Your task to perform on an android device: Show me productivity apps on the Play Store Image 0: 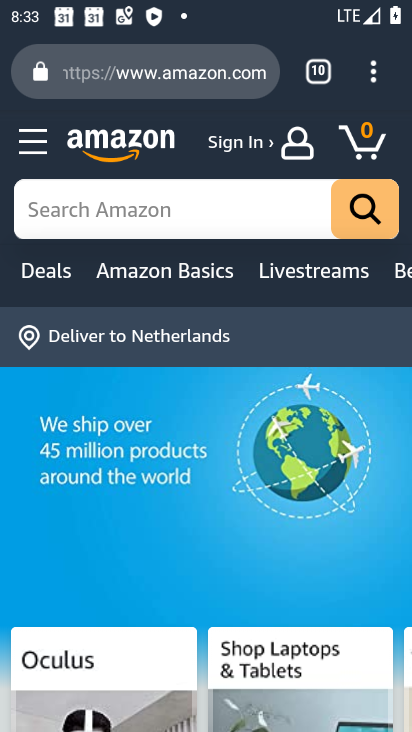
Step 0: press home button
Your task to perform on an android device: Show me productivity apps on the Play Store Image 1: 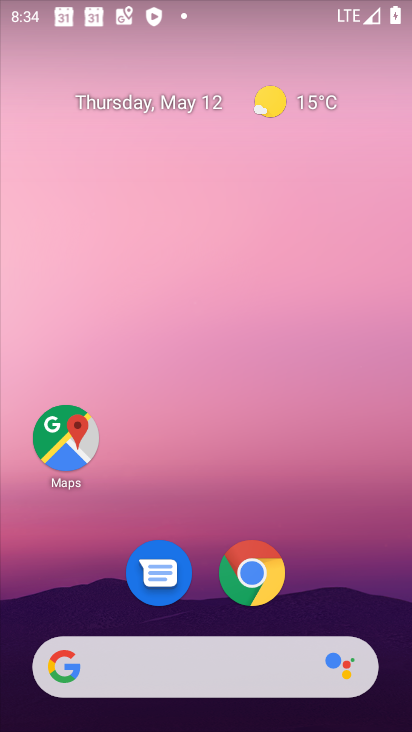
Step 1: drag from (319, 457) to (217, 40)
Your task to perform on an android device: Show me productivity apps on the Play Store Image 2: 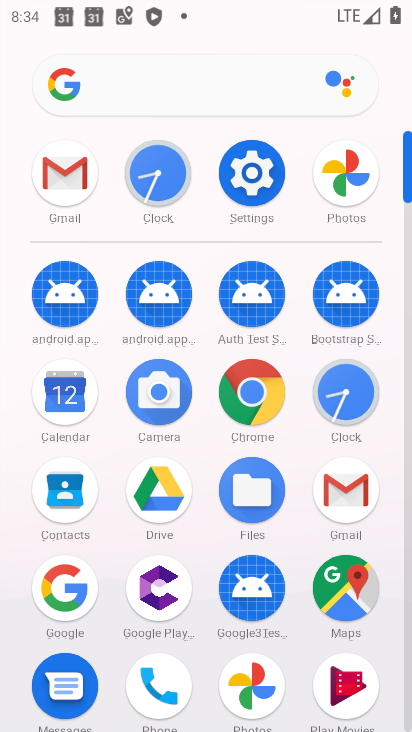
Step 2: drag from (209, 630) to (172, 305)
Your task to perform on an android device: Show me productivity apps on the Play Store Image 3: 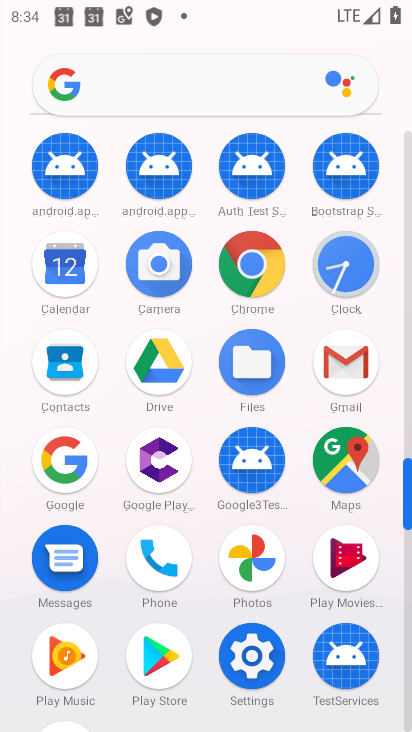
Step 3: click (166, 655)
Your task to perform on an android device: Show me productivity apps on the Play Store Image 4: 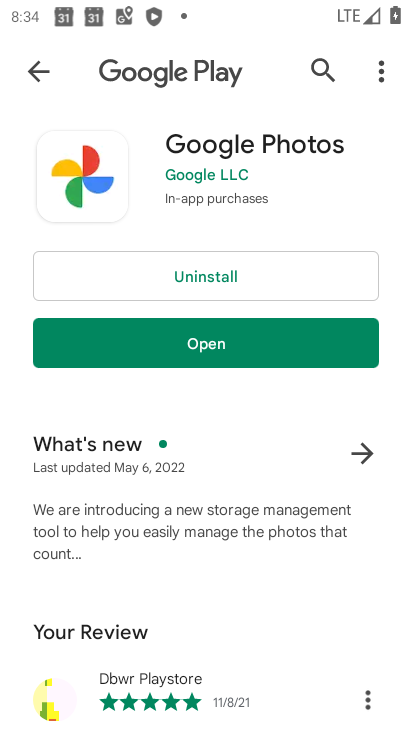
Step 4: click (25, 66)
Your task to perform on an android device: Show me productivity apps on the Play Store Image 5: 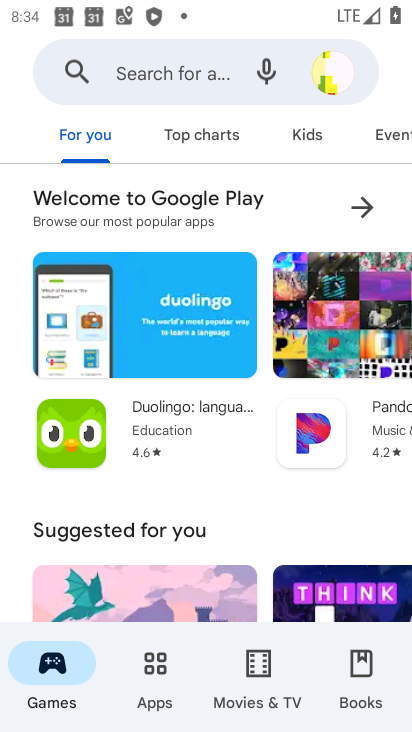
Step 5: click (160, 661)
Your task to perform on an android device: Show me productivity apps on the Play Store Image 6: 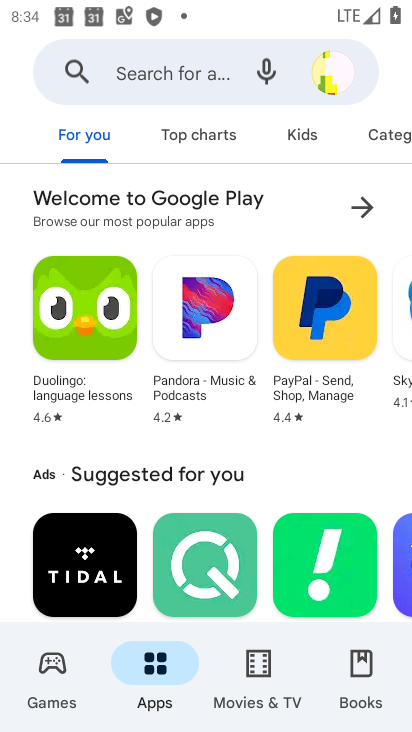
Step 6: task complete